Your task to perform on an android device: Open Yahoo.com Image 0: 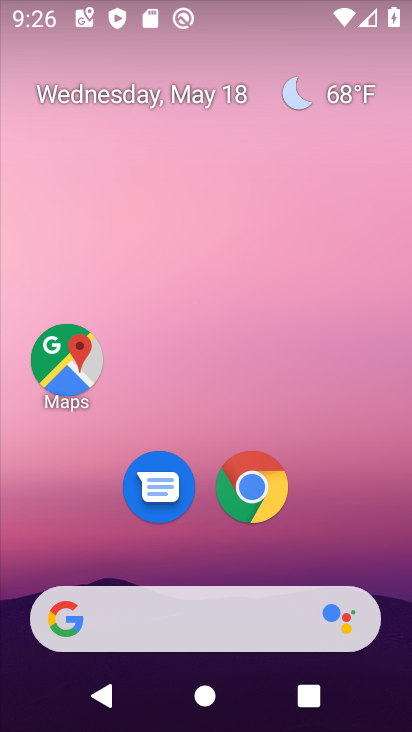
Step 0: drag from (345, 514) to (315, 131)
Your task to perform on an android device: Open Yahoo.com Image 1: 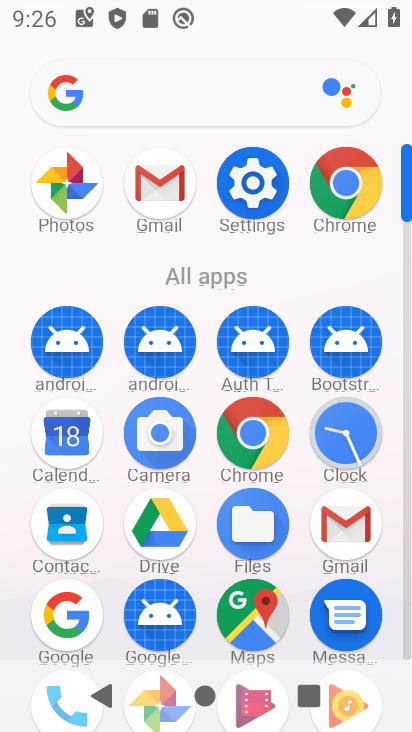
Step 1: click (339, 160)
Your task to perform on an android device: Open Yahoo.com Image 2: 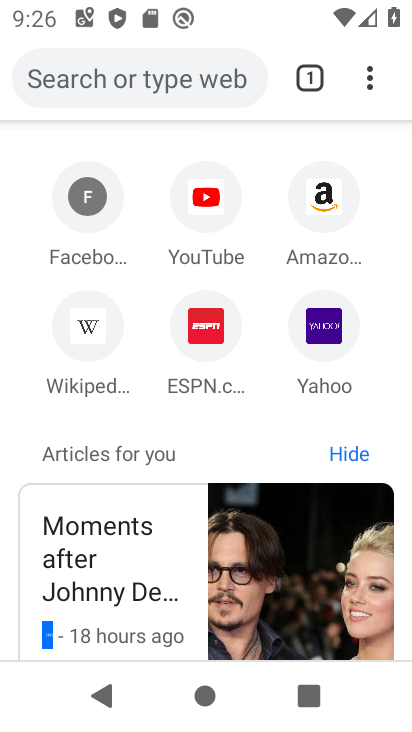
Step 2: click (145, 82)
Your task to perform on an android device: Open Yahoo.com Image 3: 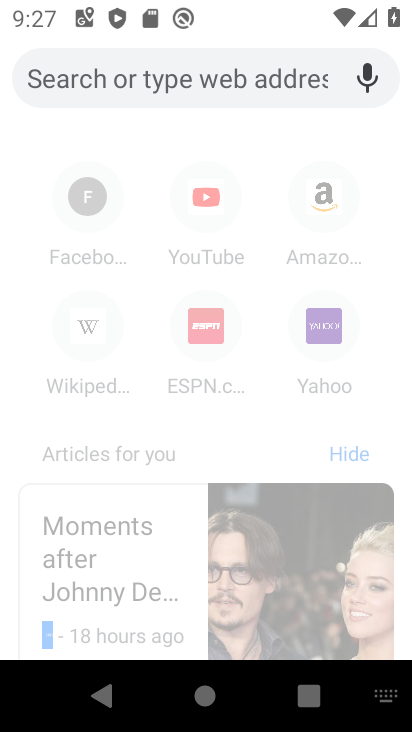
Step 3: type "yahoo.com"
Your task to perform on an android device: Open Yahoo.com Image 4: 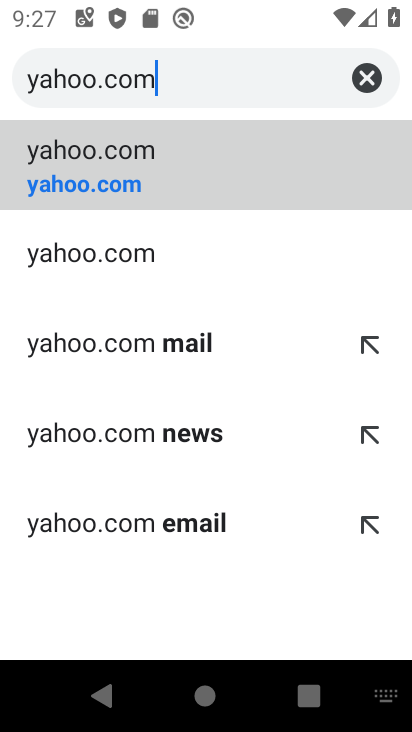
Step 4: click (145, 187)
Your task to perform on an android device: Open Yahoo.com Image 5: 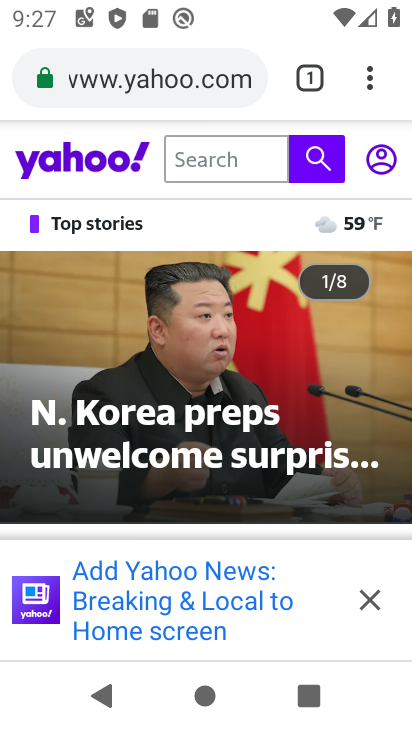
Step 5: task complete